Your task to perform on an android device: find which apps use the phone's location Image 0: 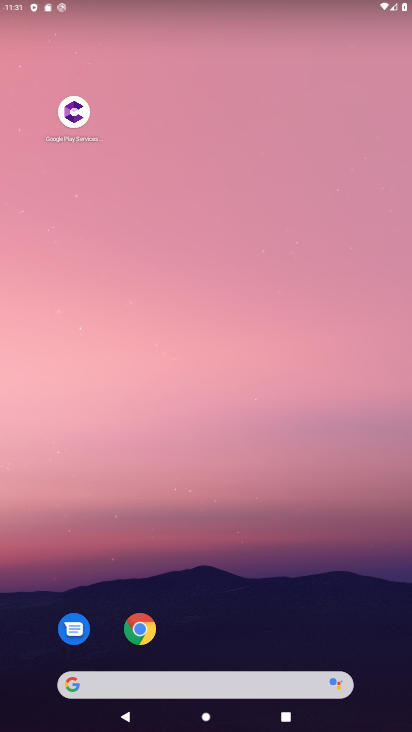
Step 0: drag from (172, 473) to (183, 42)
Your task to perform on an android device: find which apps use the phone's location Image 1: 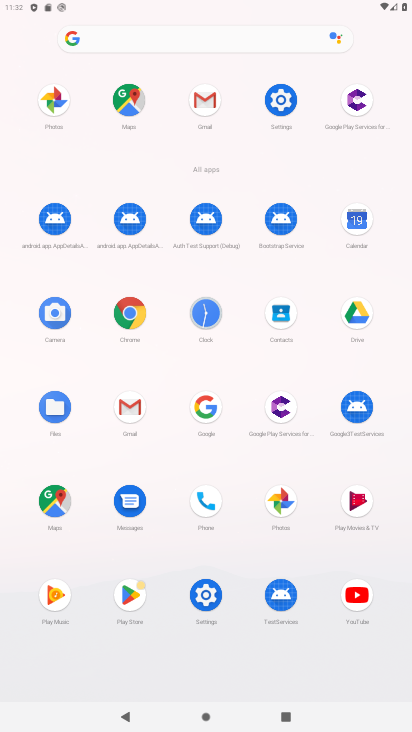
Step 1: click (219, 616)
Your task to perform on an android device: find which apps use the phone's location Image 2: 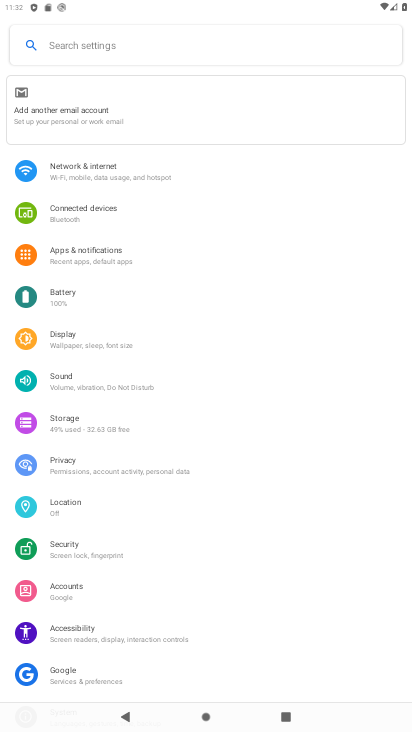
Step 2: click (50, 509)
Your task to perform on an android device: find which apps use the phone's location Image 3: 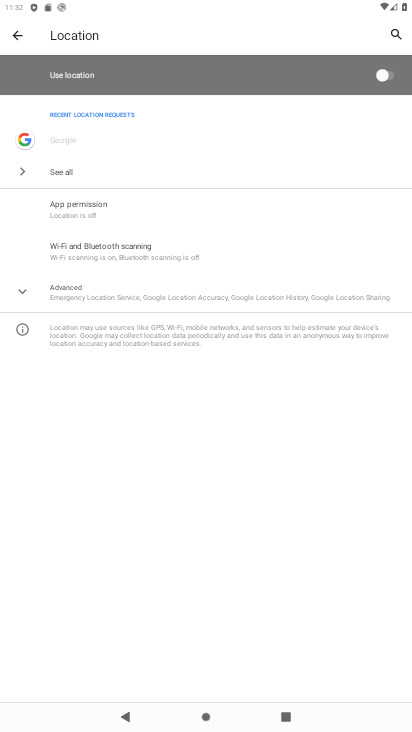
Step 3: click (159, 289)
Your task to perform on an android device: find which apps use the phone's location Image 4: 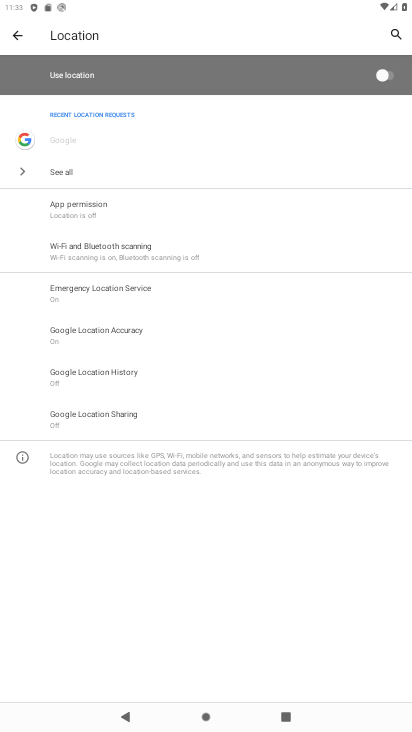
Step 4: click (94, 215)
Your task to perform on an android device: find which apps use the phone's location Image 5: 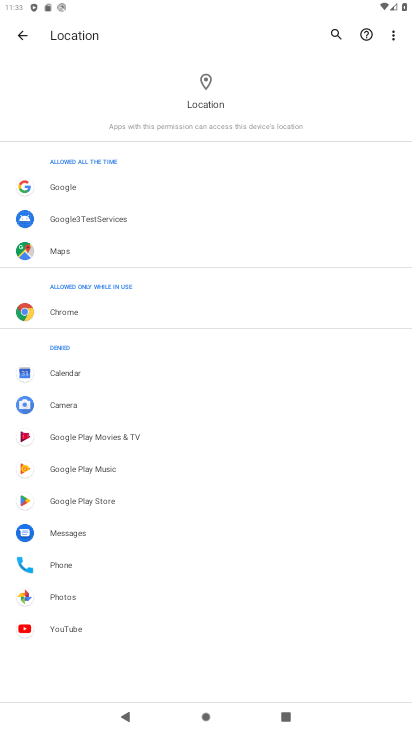
Step 5: task complete